Your task to perform on an android device: find which apps use the phone's location Image 0: 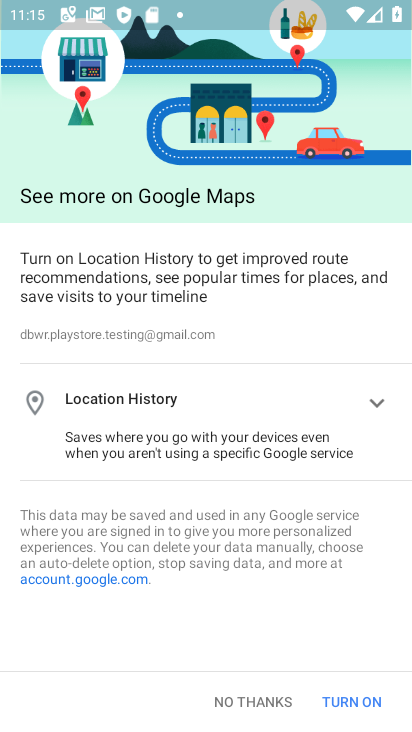
Step 0: press home button
Your task to perform on an android device: find which apps use the phone's location Image 1: 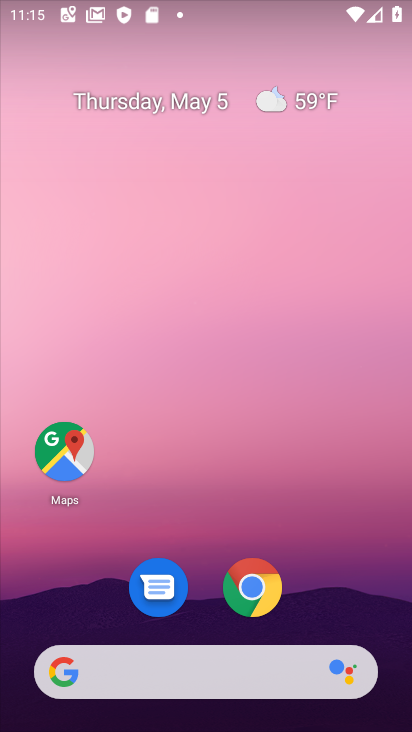
Step 1: drag from (90, 607) to (216, 0)
Your task to perform on an android device: find which apps use the phone's location Image 2: 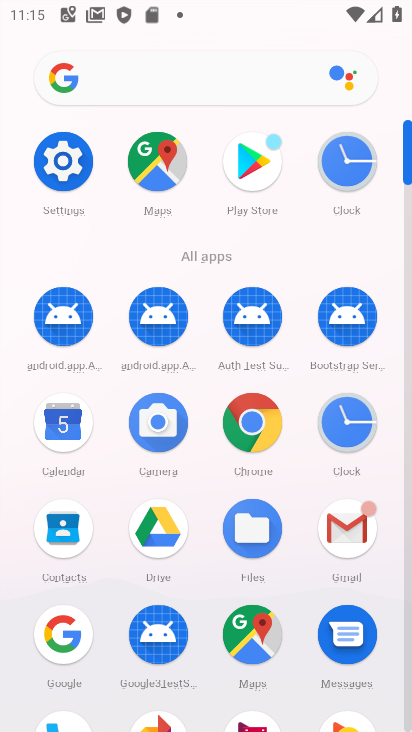
Step 2: drag from (124, 672) to (226, 287)
Your task to perform on an android device: find which apps use the phone's location Image 3: 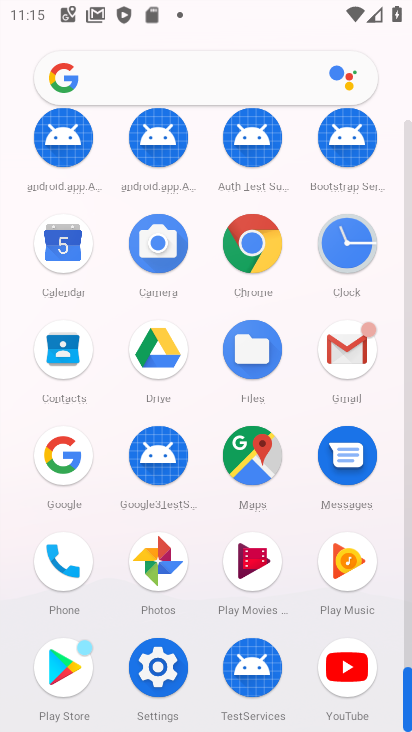
Step 3: click (157, 673)
Your task to perform on an android device: find which apps use the phone's location Image 4: 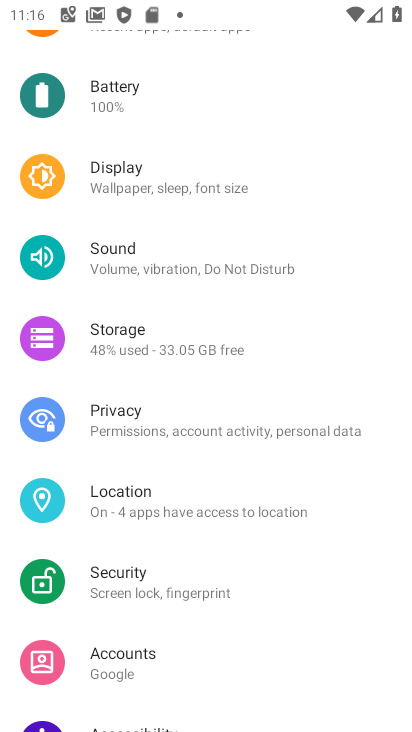
Step 4: click (176, 507)
Your task to perform on an android device: find which apps use the phone's location Image 5: 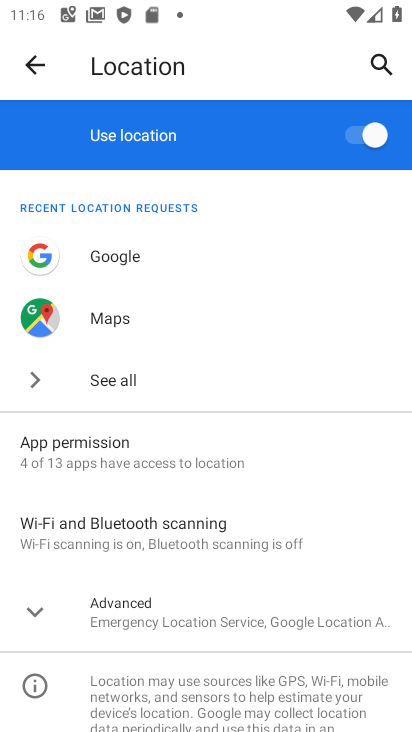
Step 5: click (140, 618)
Your task to perform on an android device: find which apps use the phone's location Image 6: 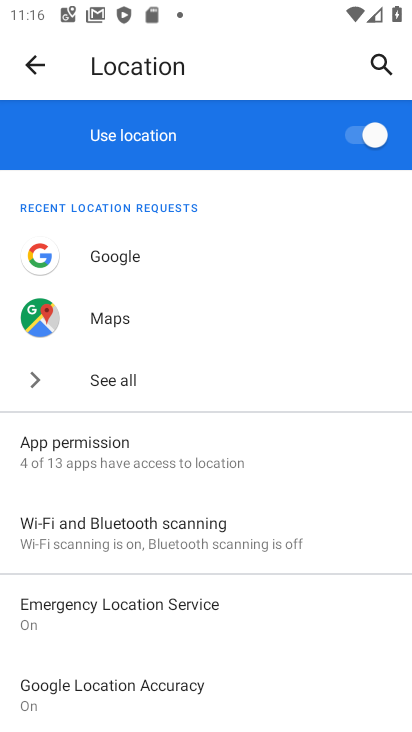
Step 6: drag from (226, 727) to (304, 332)
Your task to perform on an android device: find which apps use the phone's location Image 7: 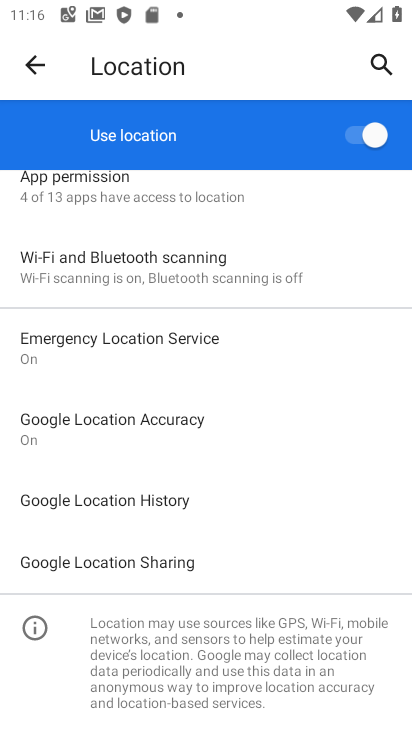
Step 7: click (156, 194)
Your task to perform on an android device: find which apps use the phone's location Image 8: 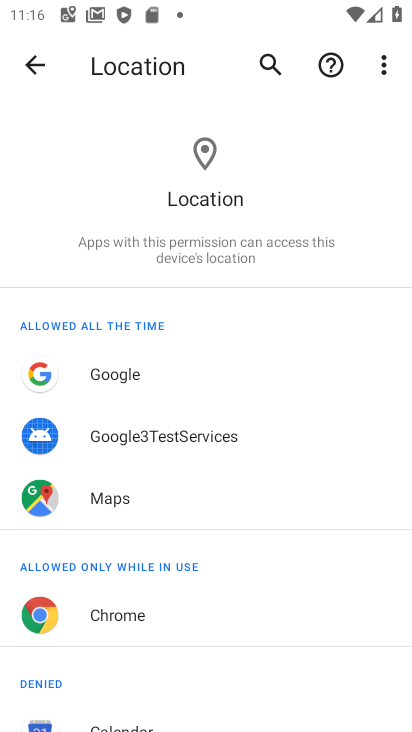
Step 8: task complete